Your task to perform on an android device: turn on airplane mode Image 0: 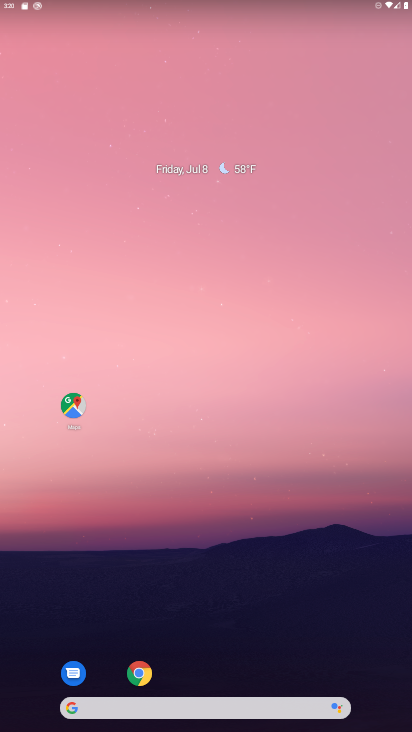
Step 0: drag from (228, 647) to (281, 312)
Your task to perform on an android device: turn on airplane mode Image 1: 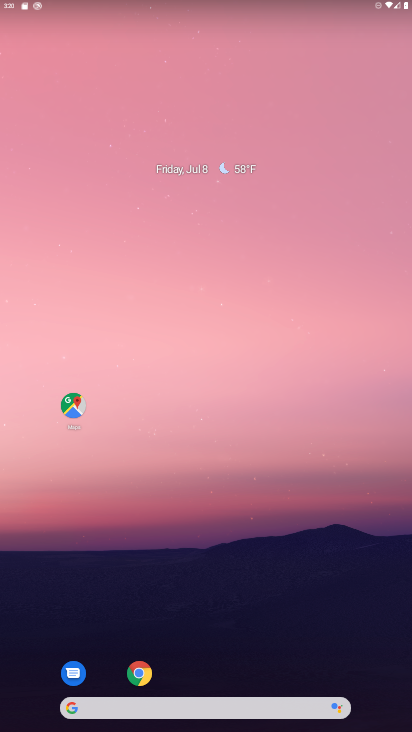
Step 1: drag from (234, 699) to (265, 303)
Your task to perform on an android device: turn on airplane mode Image 2: 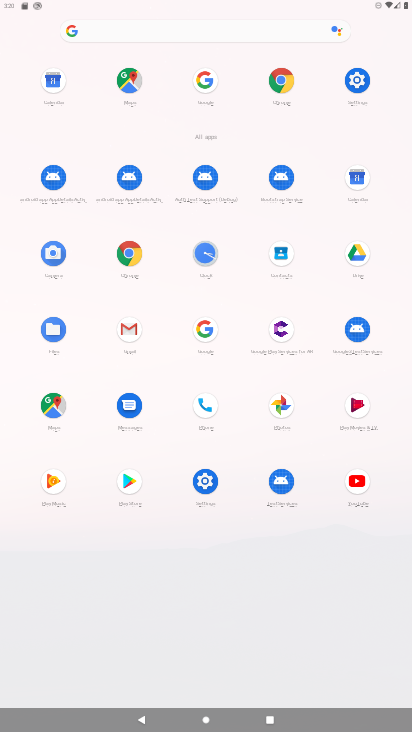
Step 2: click (360, 79)
Your task to perform on an android device: turn on airplane mode Image 3: 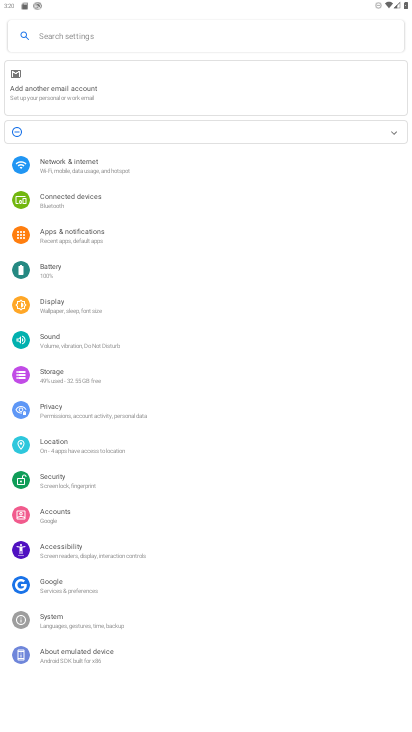
Step 3: click (67, 168)
Your task to perform on an android device: turn on airplane mode Image 4: 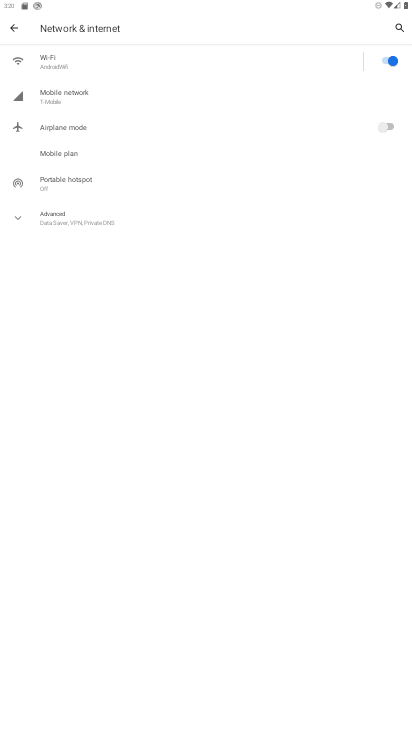
Step 4: click (73, 129)
Your task to perform on an android device: turn on airplane mode Image 5: 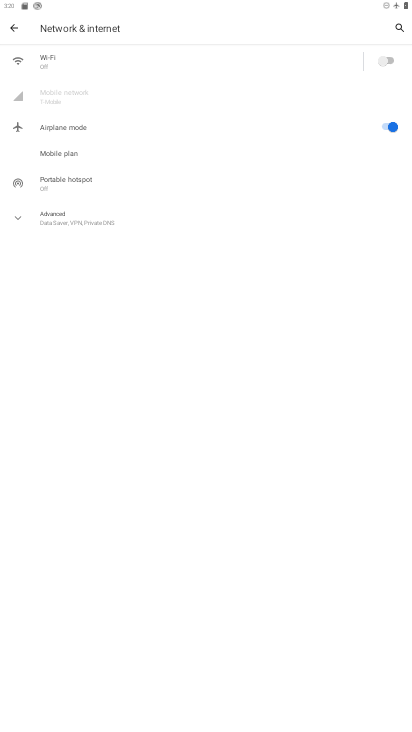
Step 5: task complete